Your task to perform on an android device: turn off location history Image 0: 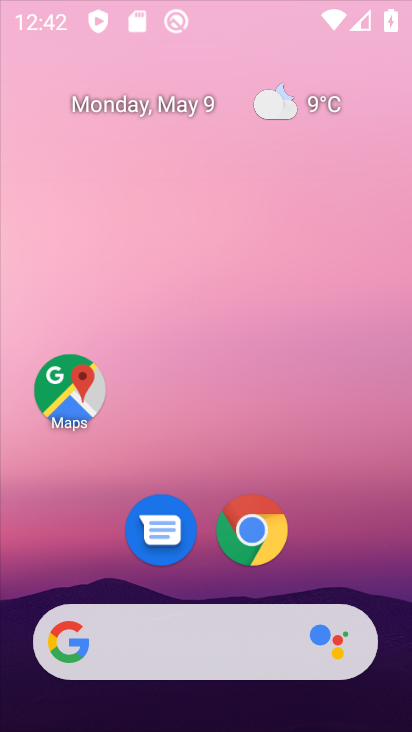
Step 0: click (311, 291)
Your task to perform on an android device: turn off location history Image 1: 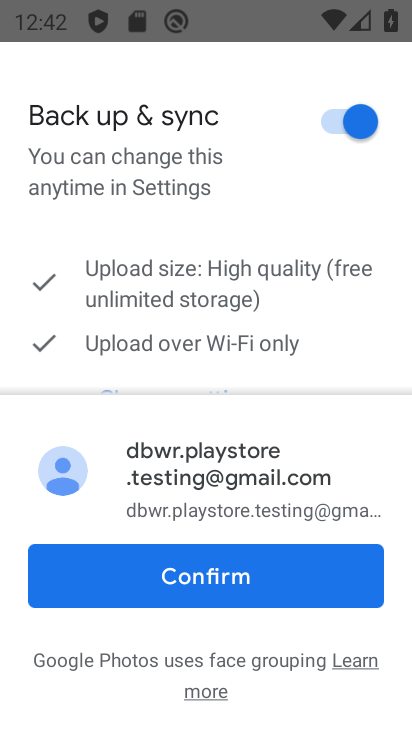
Step 1: click (239, 584)
Your task to perform on an android device: turn off location history Image 2: 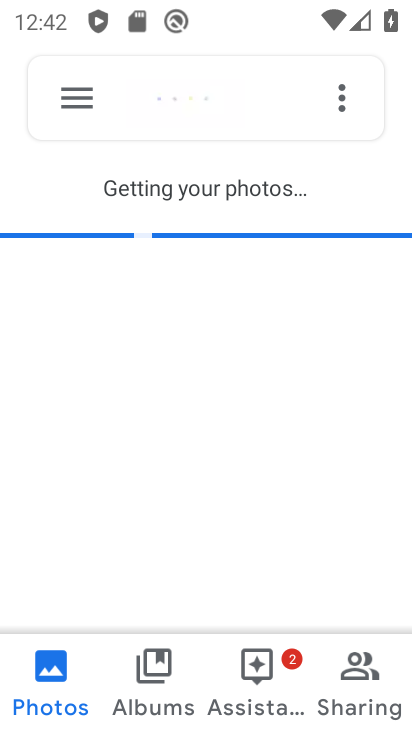
Step 2: press home button
Your task to perform on an android device: turn off location history Image 3: 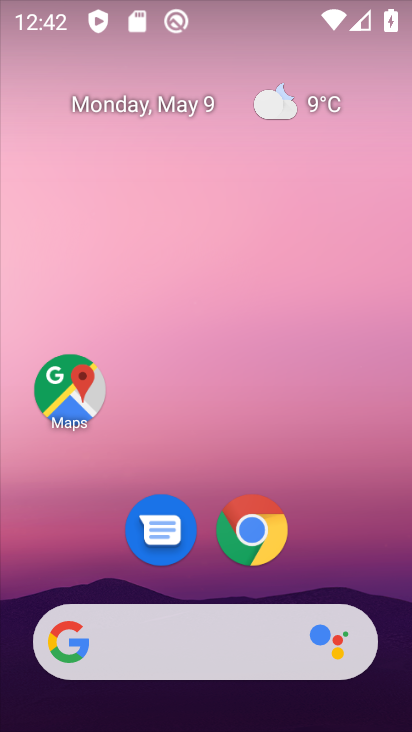
Step 3: drag from (373, 565) to (315, 275)
Your task to perform on an android device: turn off location history Image 4: 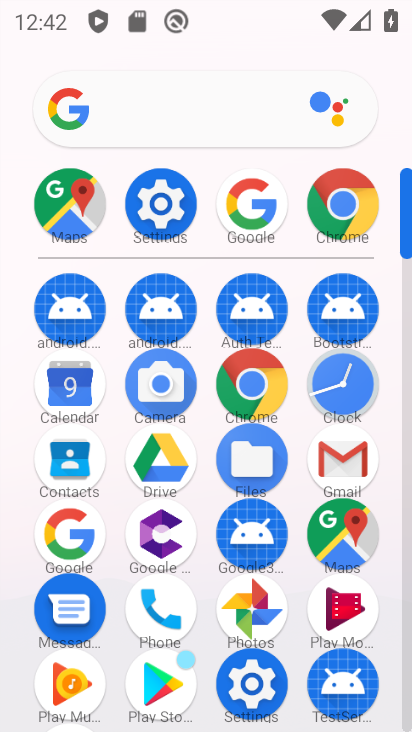
Step 4: click (144, 211)
Your task to perform on an android device: turn off location history Image 5: 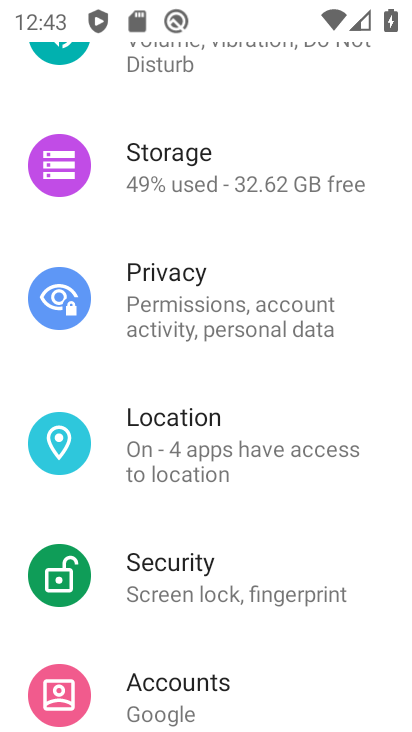
Step 5: click (205, 467)
Your task to perform on an android device: turn off location history Image 6: 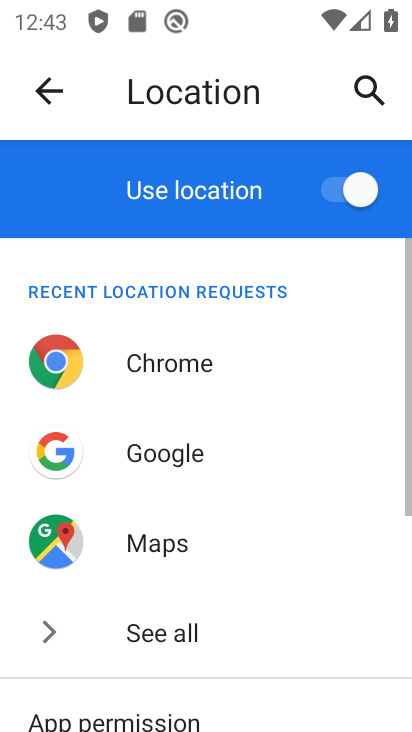
Step 6: drag from (179, 585) to (223, 218)
Your task to perform on an android device: turn off location history Image 7: 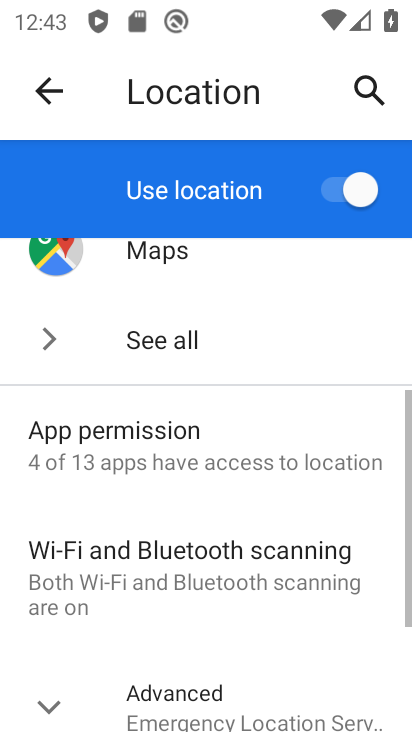
Step 7: click (157, 431)
Your task to perform on an android device: turn off location history Image 8: 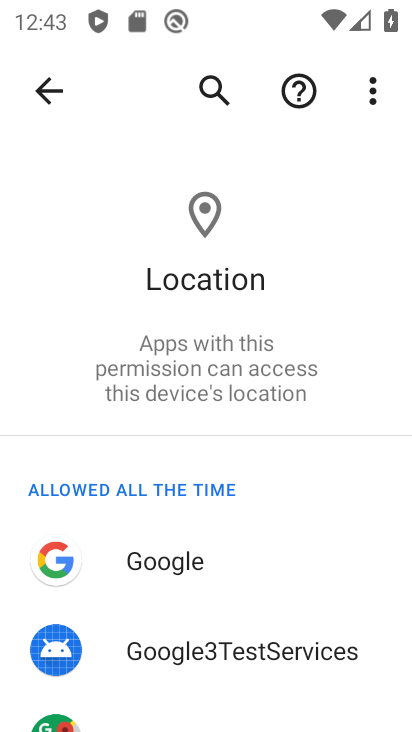
Step 8: click (44, 77)
Your task to perform on an android device: turn off location history Image 9: 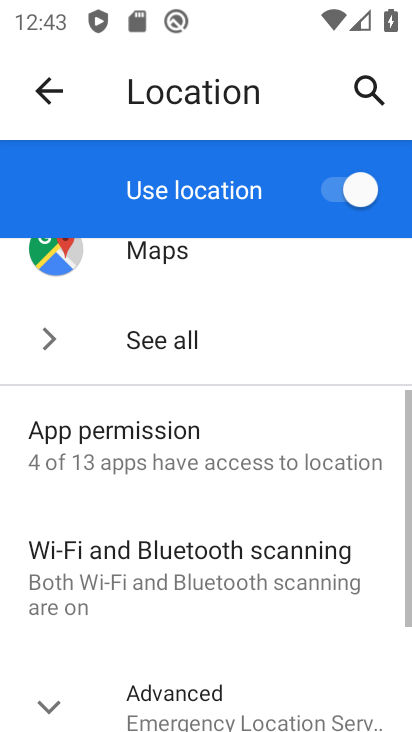
Step 9: drag from (220, 609) to (242, 199)
Your task to perform on an android device: turn off location history Image 10: 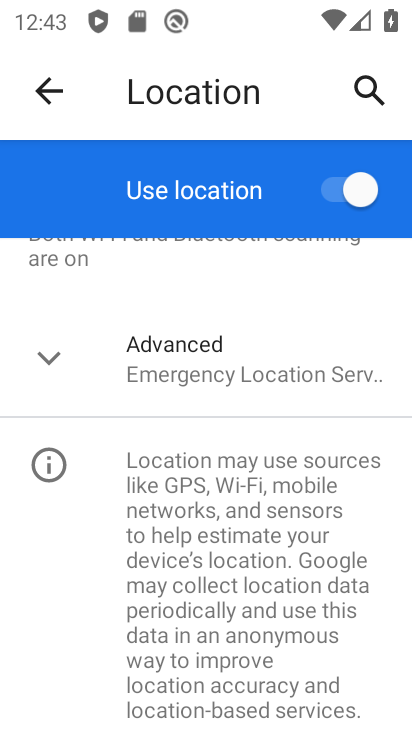
Step 10: click (178, 382)
Your task to perform on an android device: turn off location history Image 11: 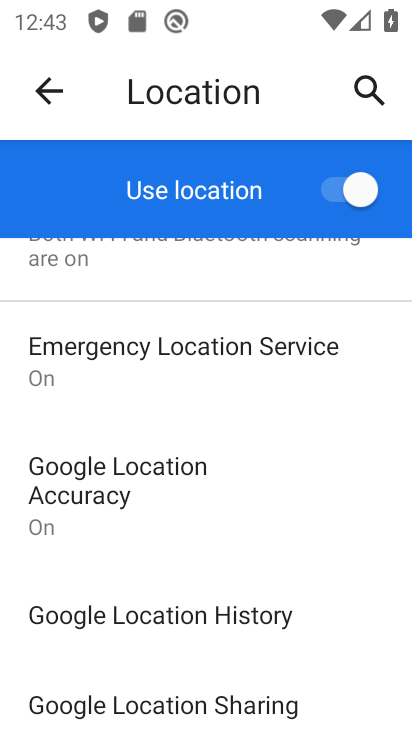
Step 11: click (125, 617)
Your task to perform on an android device: turn off location history Image 12: 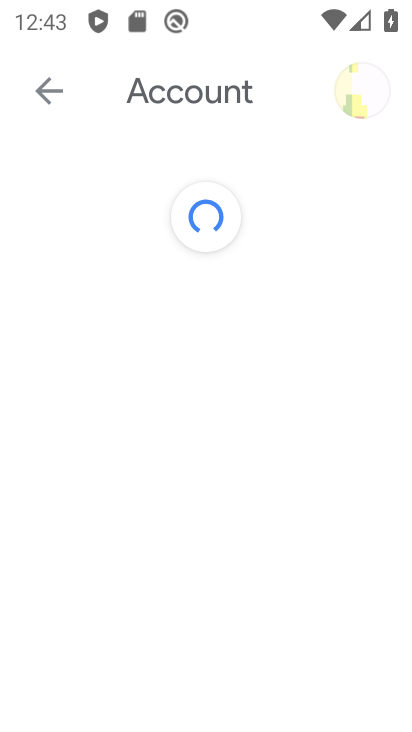
Step 12: drag from (220, 679) to (284, 170)
Your task to perform on an android device: turn off location history Image 13: 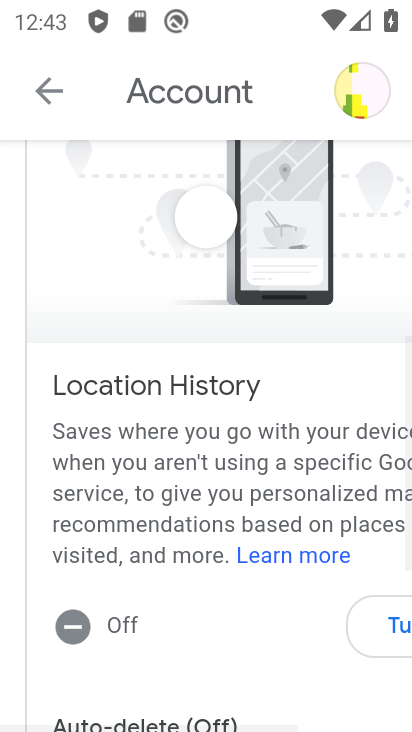
Step 13: drag from (221, 613) to (219, 365)
Your task to perform on an android device: turn off location history Image 14: 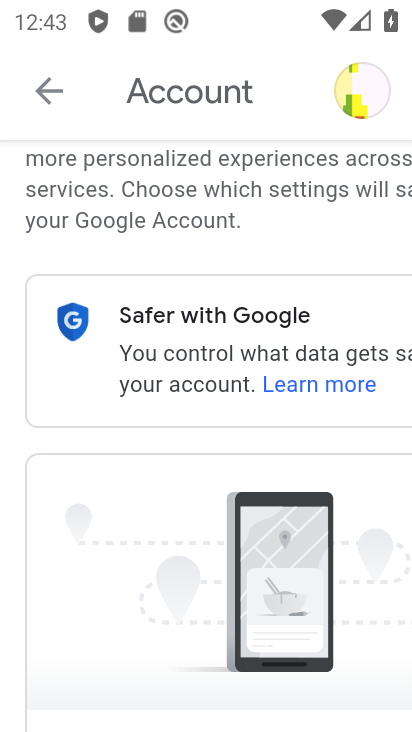
Step 14: drag from (122, 631) to (148, 208)
Your task to perform on an android device: turn off location history Image 15: 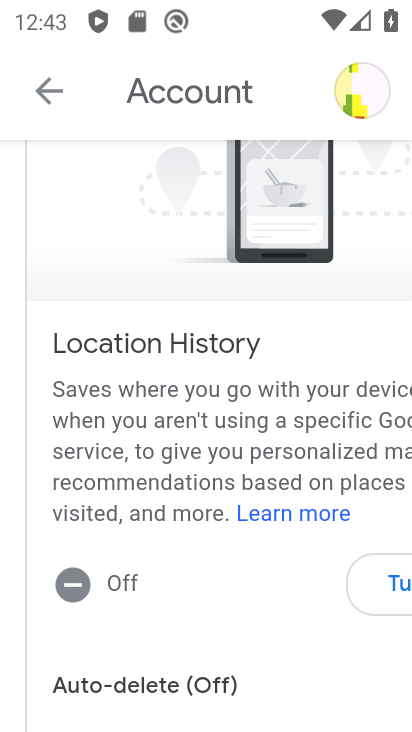
Step 15: click (98, 583)
Your task to perform on an android device: turn off location history Image 16: 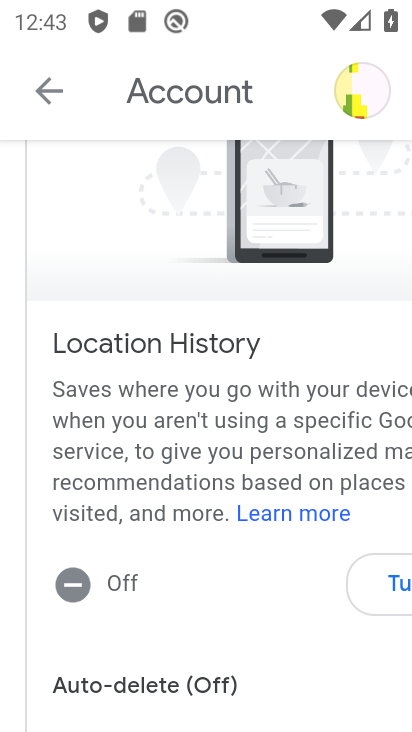
Step 16: click (98, 583)
Your task to perform on an android device: turn off location history Image 17: 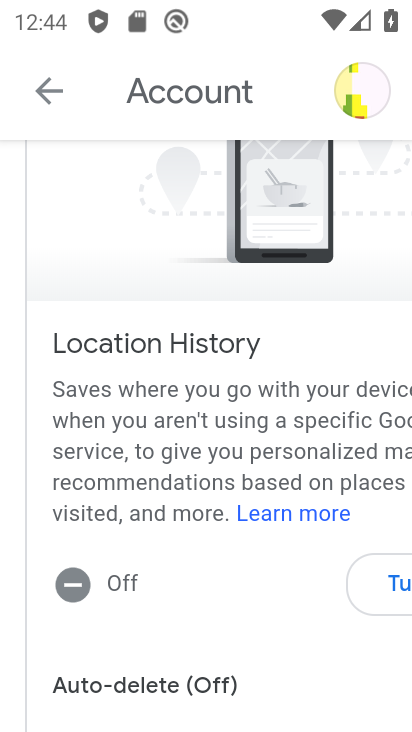
Step 17: task complete